Your task to perform on an android device: clear all cookies in the chrome app Image 0: 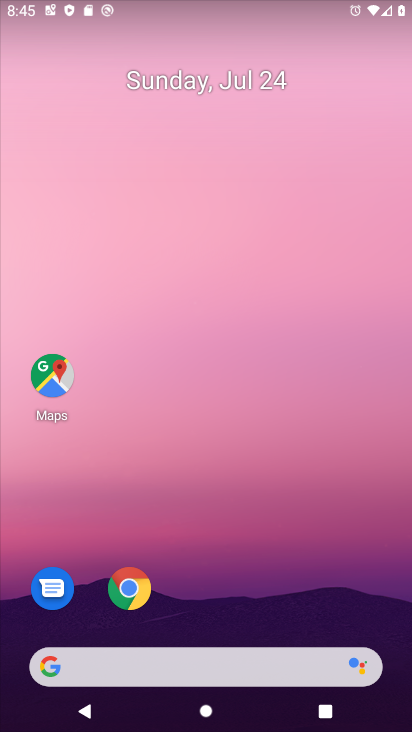
Step 0: drag from (291, 461) to (219, 51)
Your task to perform on an android device: clear all cookies in the chrome app Image 1: 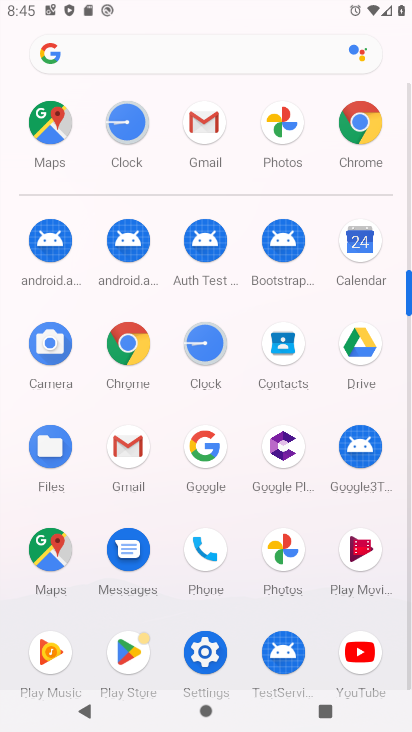
Step 1: click (354, 110)
Your task to perform on an android device: clear all cookies in the chrome app Image 2: 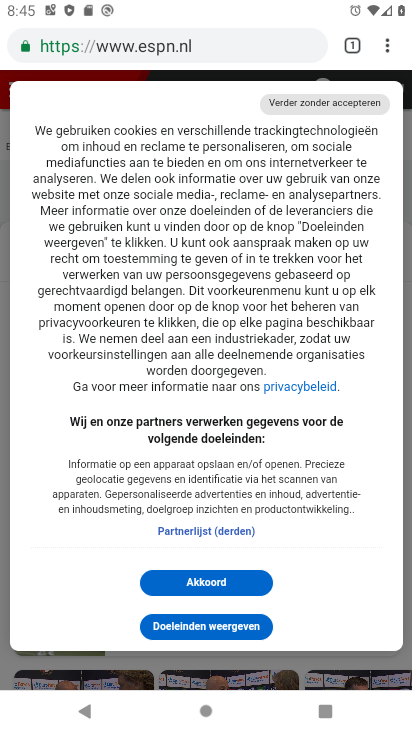
Step 2: drag from (387, 47) to (232, 254)
Your task to perform on an android device: clear all cookies in the chrome app Image 3: 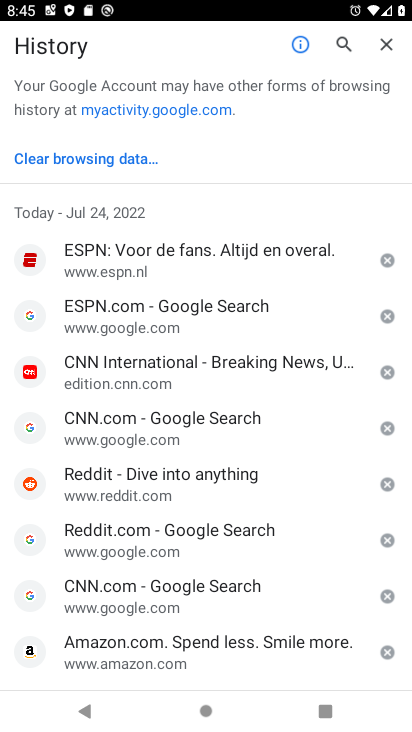
Step 3: click (76, 150)
Your task to perform on an android device: clear all cookies in the chrome app Image 4: 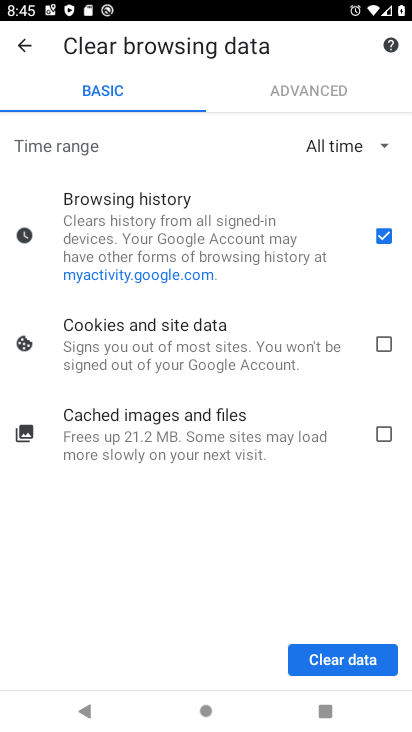
Step 4: click (370, 347)
Your task to perform on an android device: clear all cookies in the chrome app Image 5: 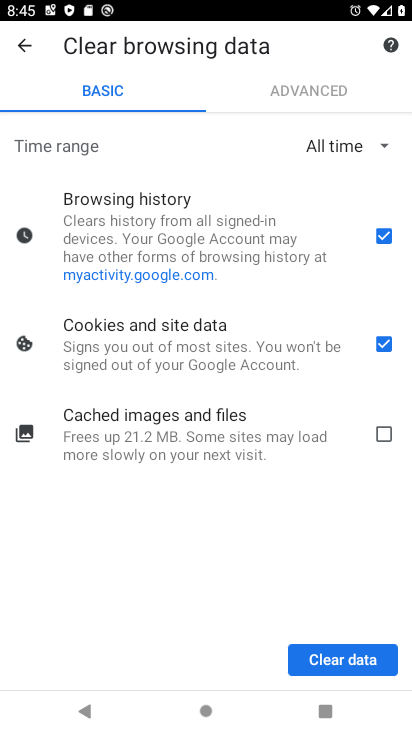
Step 5: click (379, 229)
Your task to perform on an android device: clear all cookies in the chrome app Image 6: 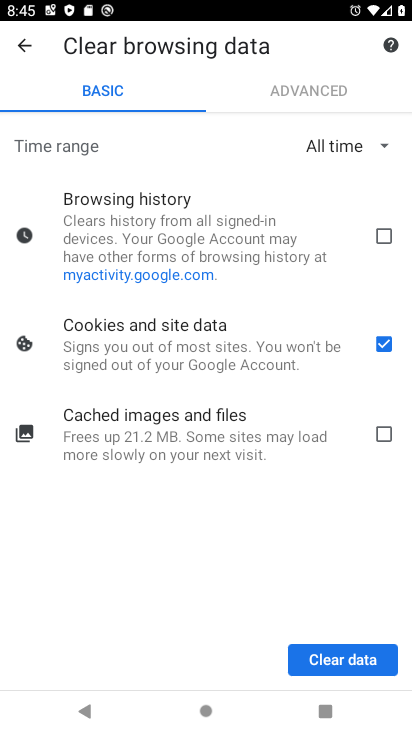
Step 6: click (365, 664)
Your task to perform on an android device: clear all cookies in the chrome app Image 7: 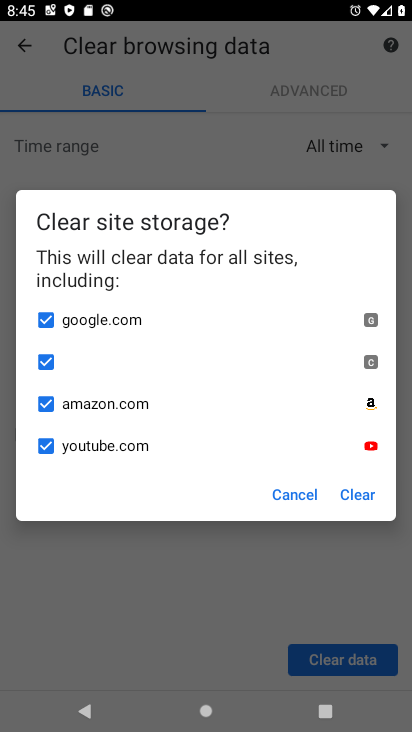
Step 7: click (355, 496)
Your task to perform on an android device: clear all cookies in the chrome app Image 8: 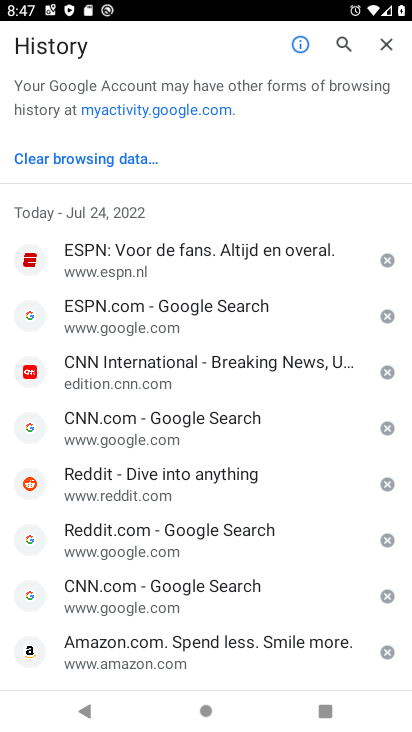
Step 8: task complete